Your task to perform on an android device: toggle airplane mode Image 0: 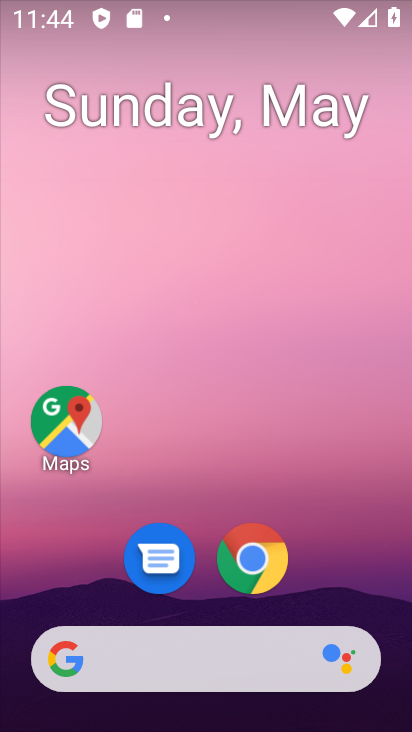
Step 0: drag from (371, 565) to (358, 109)
Your task to perform on an android device: toggle airplane mode Image 1: 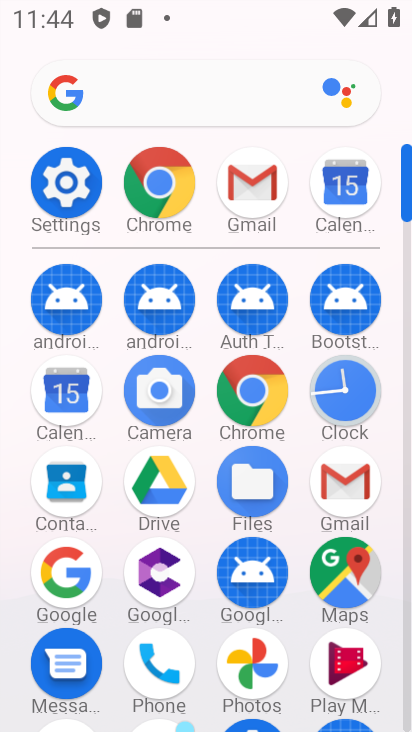
Step 1: click (50, 201)
Your task to perform on an android device: toggle airplane mode Image 2: 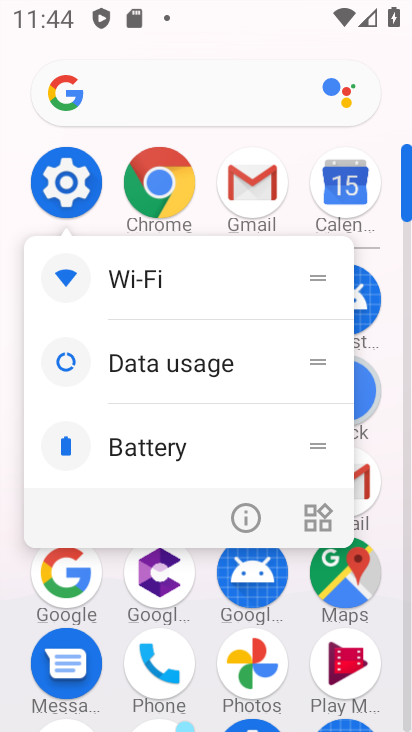
Step 2: click (45, 190)
Your task to perform on an android device: toggle airplane mode Image 3: 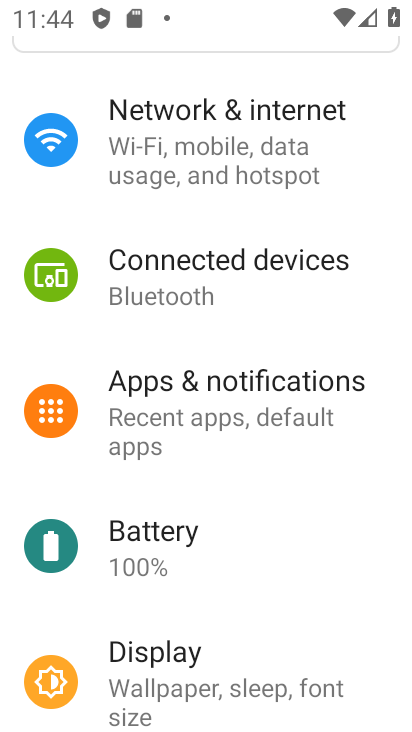
Step 3: drag from (378, 221) to (379, 477)
Your task to perform on an android device: toggle airplane mode Image 4: 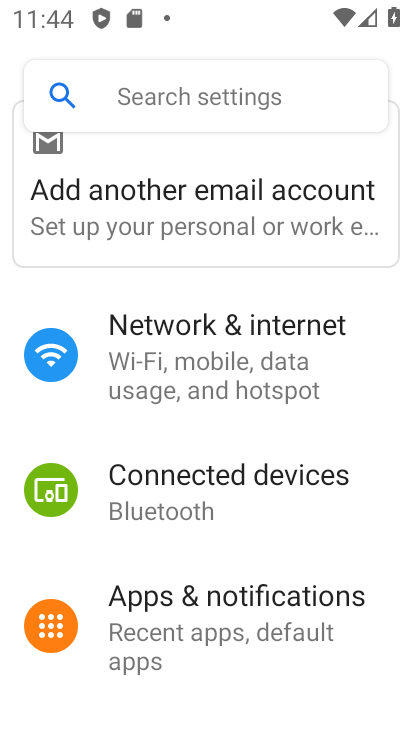
Step 4: click (257, 346)
Your task to perform on an android device: toggle airplane mode Image 5: 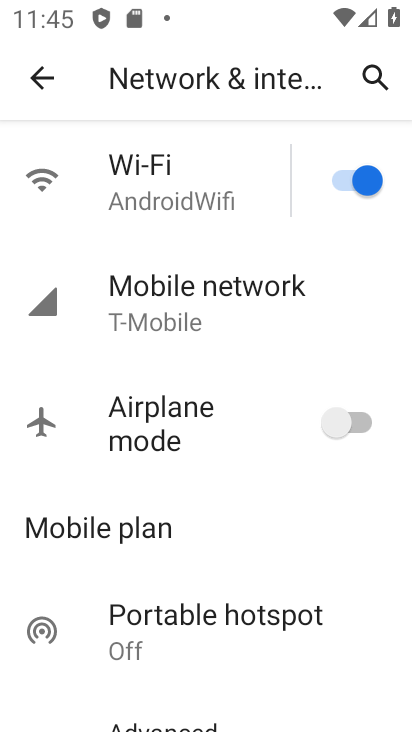
Step 5: click (342, 418)
Your task to perform on an android device: toggle airplane mode Image 6: 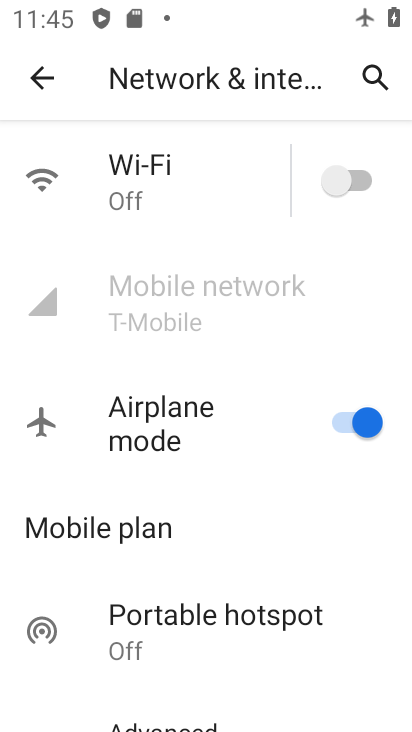
Step 6: task complete